Your task to perform on an android device: read, delete, or share a saved page in the chrome app Image 0: 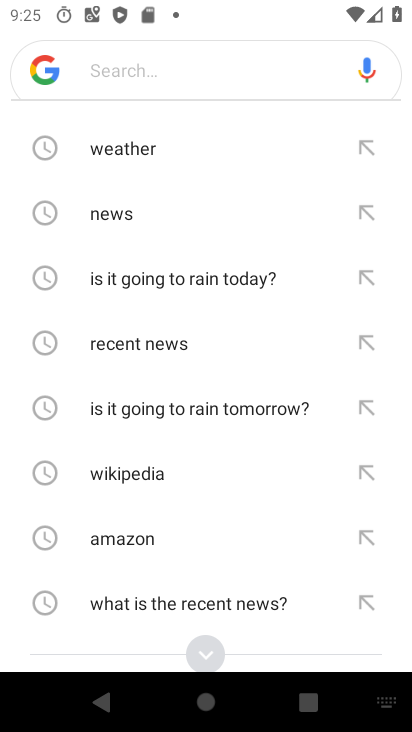
Step 0: press home button
Your task to perform on an android device: read, delete, or share a saved page in the chrome app Image 1: 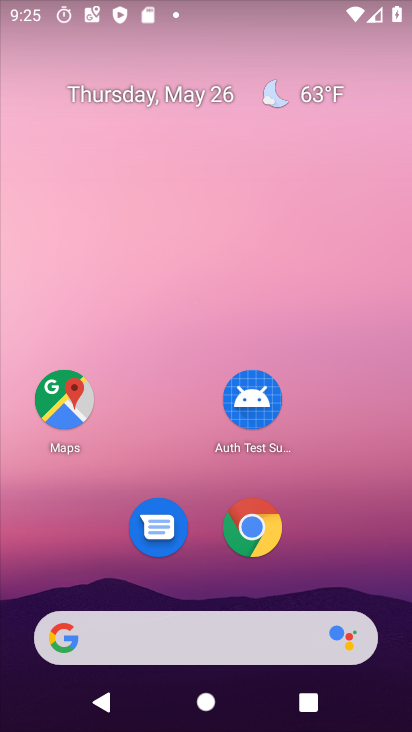
Step 1: click (251, 536)
Your task to perform on an android device: read, delete, or share a saved page in the chrome app Image 2: 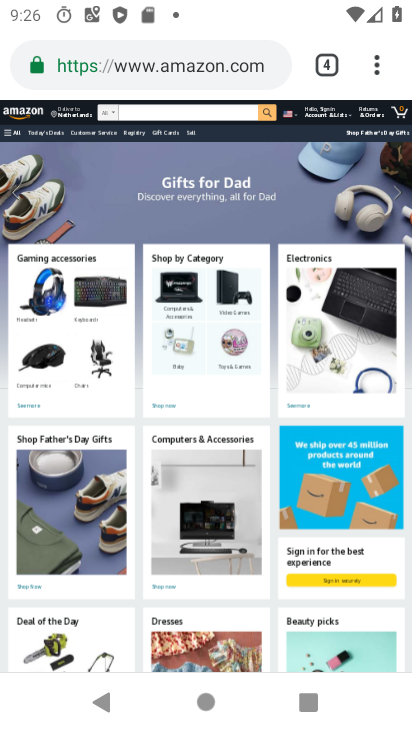
Step 2: task complete